Your task to perform on an android device: open a new tab in the chrome app Image 0: 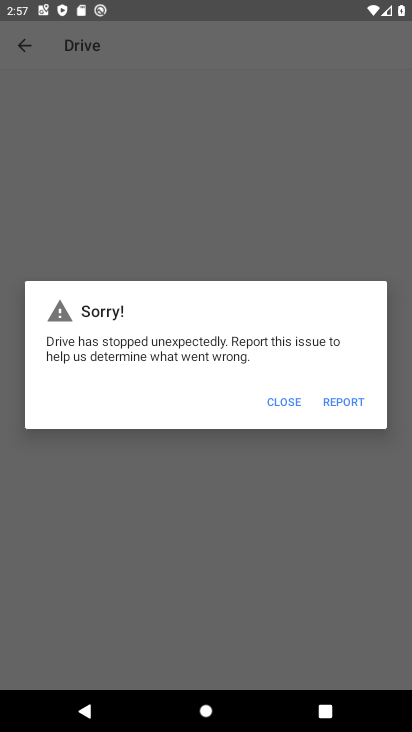
Step 0: press home button
Your task to perform on an android device: open a new tab in the chrome app Image 1: 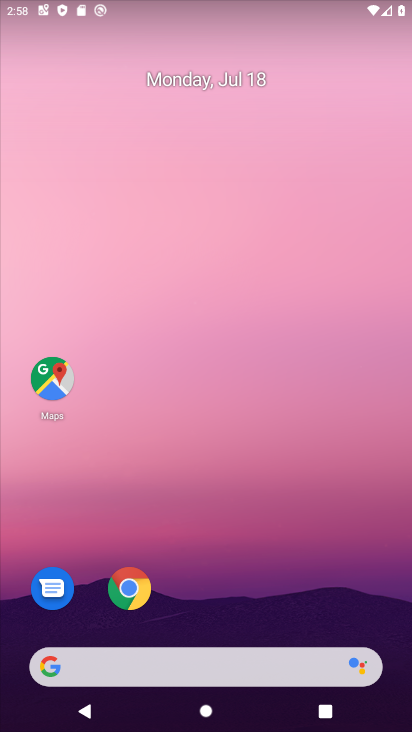
Step 1: click (118, 602)
Your task to perform on an android device: open a new tab in the chrome app Image 2: 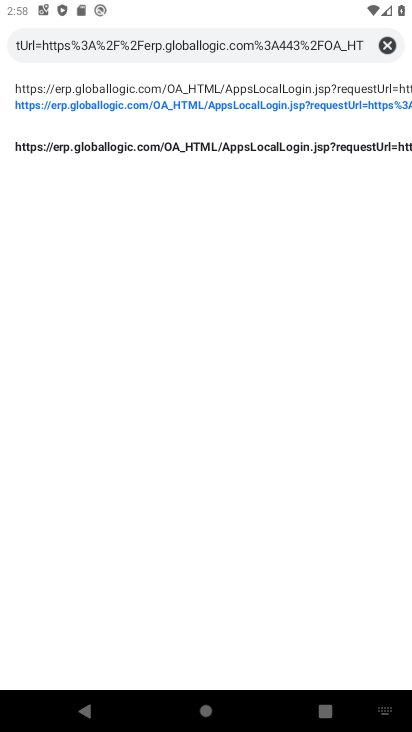
Step 2: click (394, 43)
Your task to perform on an android device: open a new tab in the chrome app Image 3: 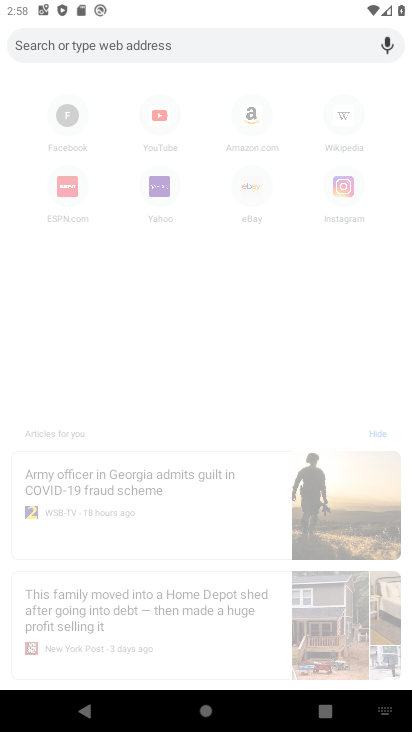
Step 3: task complete